Your task to perform on an android device: clear history in the chrome app Image 0: 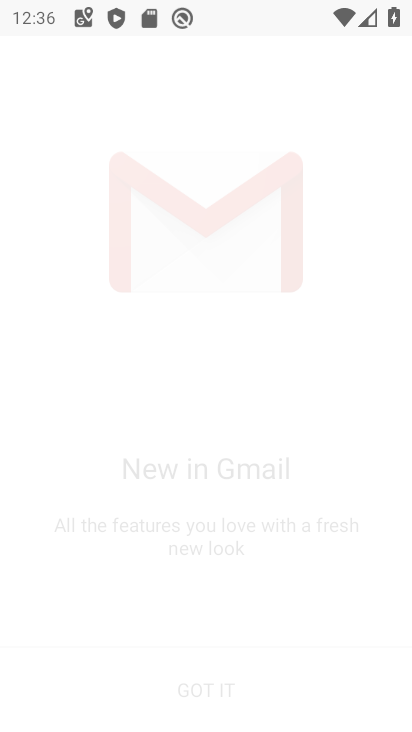
Step 0: drag from (222, 508) to (311, 36)
Your task to perform on an android device: clear history in the chrome app Image 1: 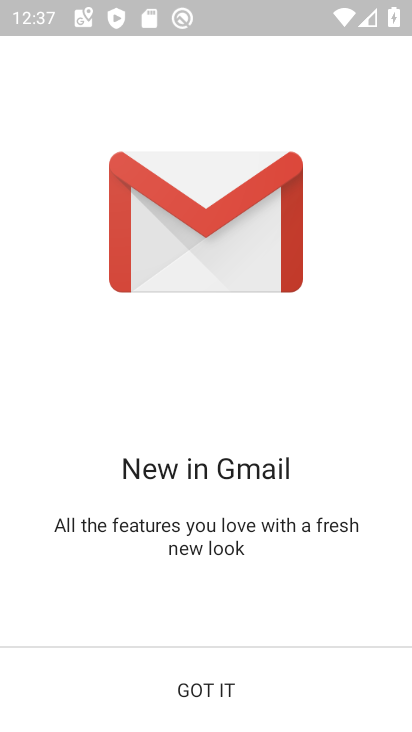
Step 1: click (181, 695)
Your task to perform on an android device: clear history in the chrome app Image 2: 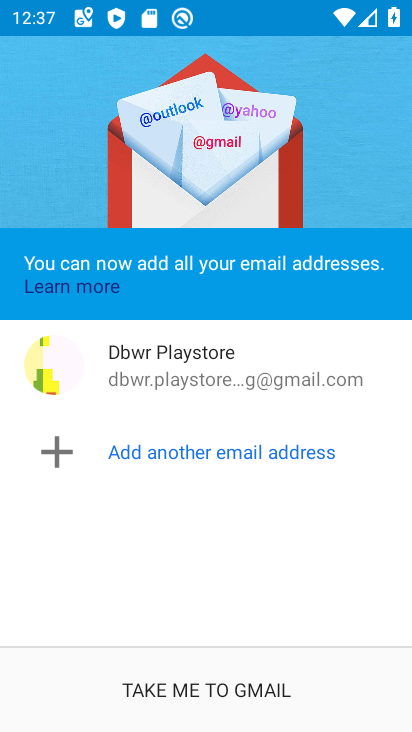
Step 2: press back button
Your task to perform on an android device: clear history in the chrome app Image 3: 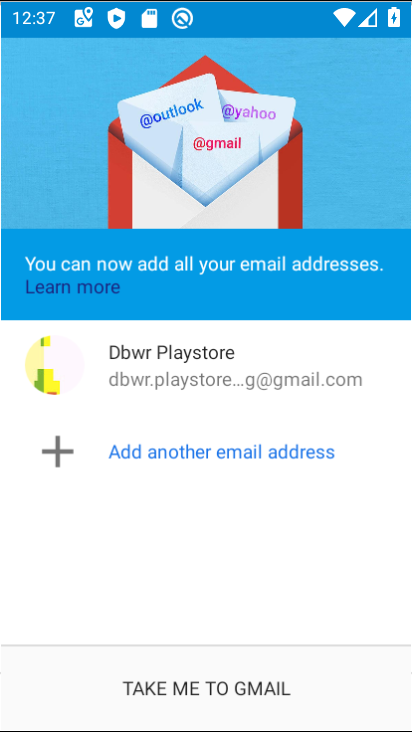
Step 3: press back button
Your task to perform on an android device: clear history in the chrome app Image 4: 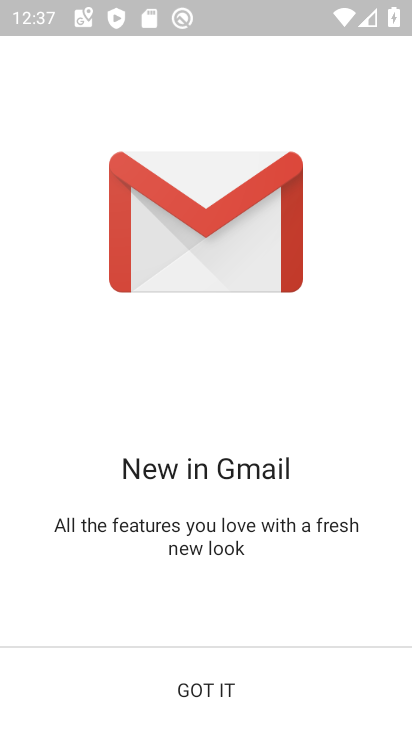
Step 4: press home button
Your task to perform on an android device: clear history in the chrome app Image 5: 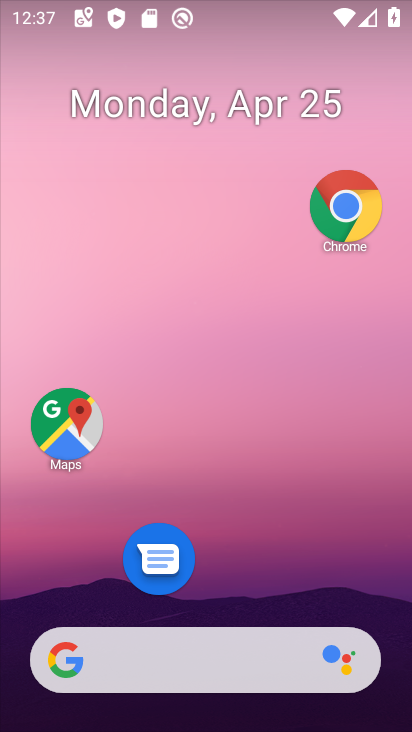
Step 5: click (350, 202)
Your task to perform on an android device: clear history in the chrome app Image 6: 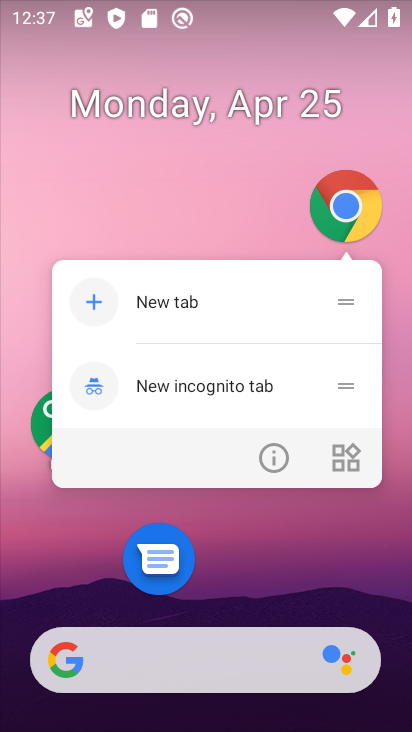
Step 6: click (348, 178)
Your task to perform on an android device: clear history in the chrome app Image 7: 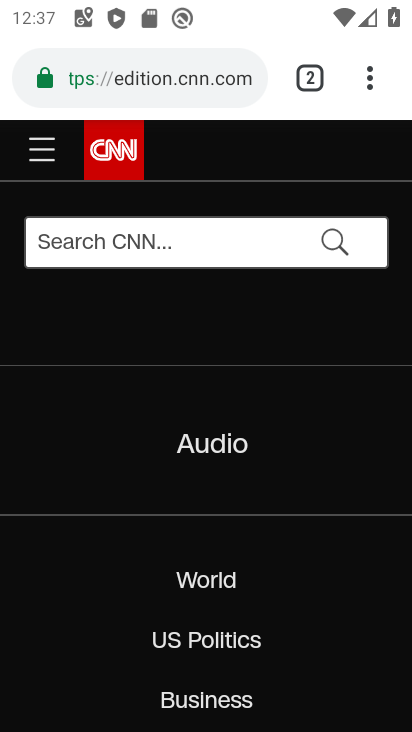
Step 7: drag from (372, 80) to (85, 419)
Your task to perform on an android device: clear history in the chrome app Image 8: 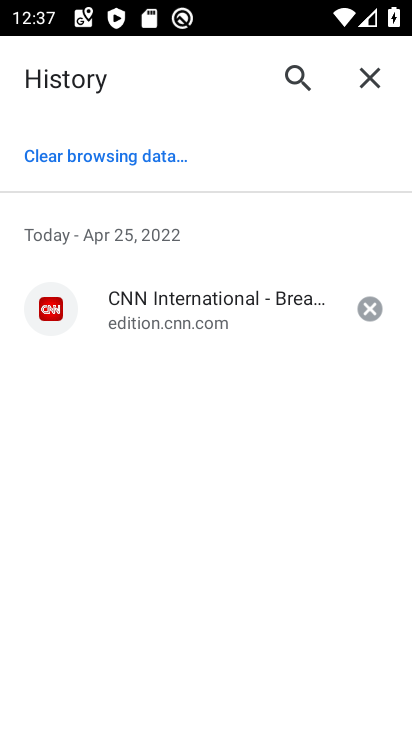
Step 8: click (97, 159)
Your task to perform on an android device: clear history in the chrome app Image 9: 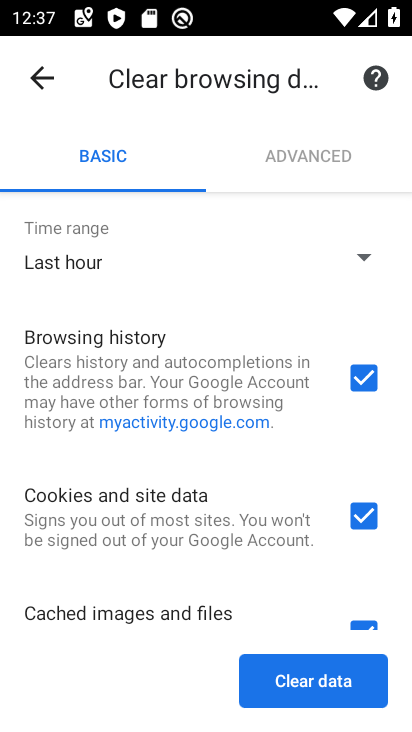
Step 9: click (304, 687)
Your task to perform on an android device: clear history in the chrome app Image 10: 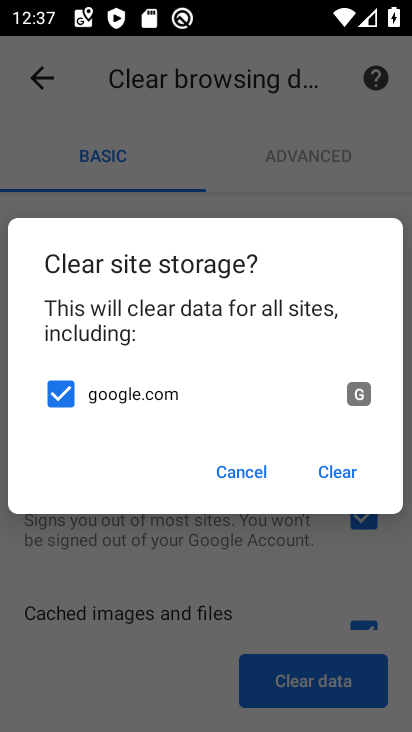
Step 10: click (331, 473)
Your task to perform on an android device: clear history in the chrome app Image 11: 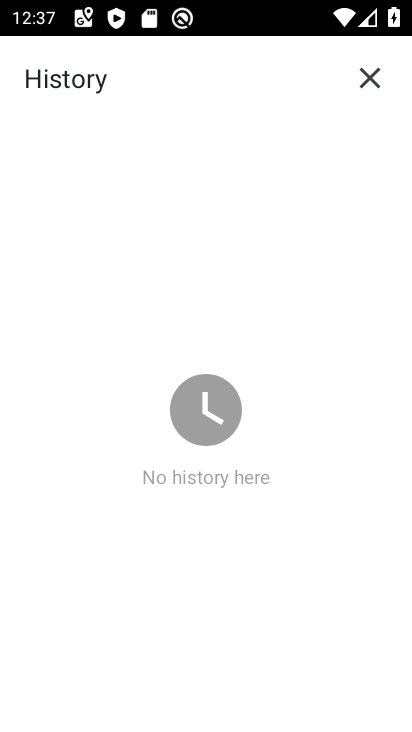
Step 11: task complete